Your task to perform on an android device: delete the emails in spam in the gmail app Image 0: 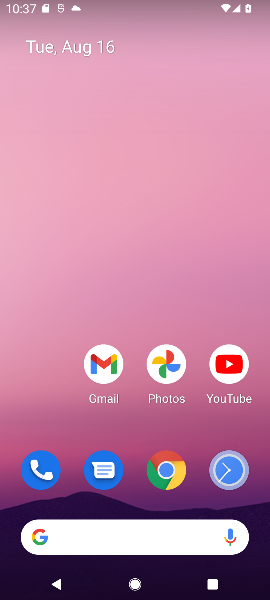
Step 0: click (102, 370)
Your task to perform on an android device: delete the emails in spam in the gmail app Image 1: 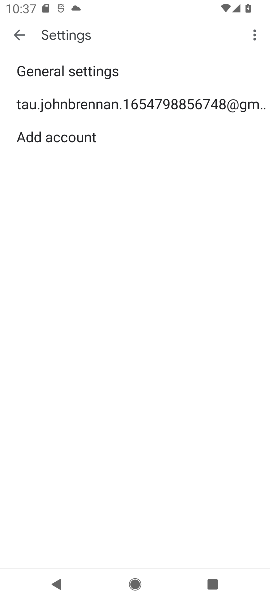
Step 1: click (20, 26)
Your task to perform on an android device: delete the emails in spam in the gmail app Image 2: 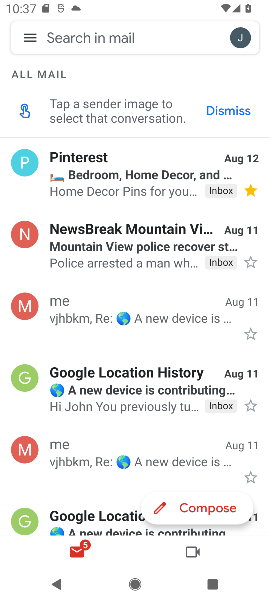
Step 2: click (24, 35)
Your task to perform on an android device: delete the emails in spam in the gmail app Image 3: 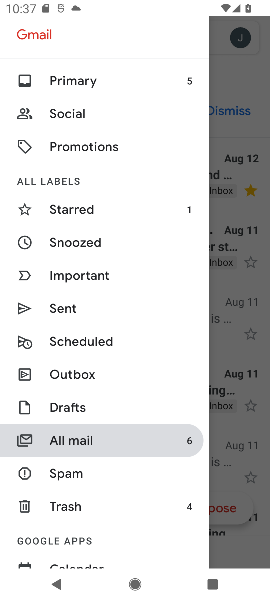
Step 3: click (64, 475)
Your task to perform on an android device: delete the emails in spam in the gmail app Image 4: 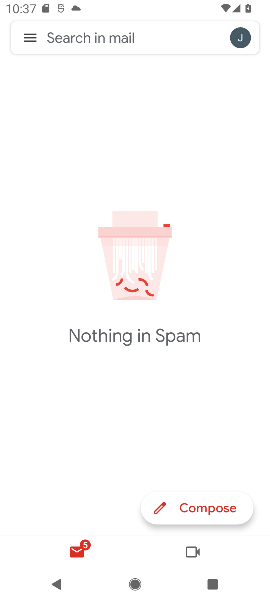
Step 4: task complete